Your task to perform on an android device: change the clock display to analog Image 0: 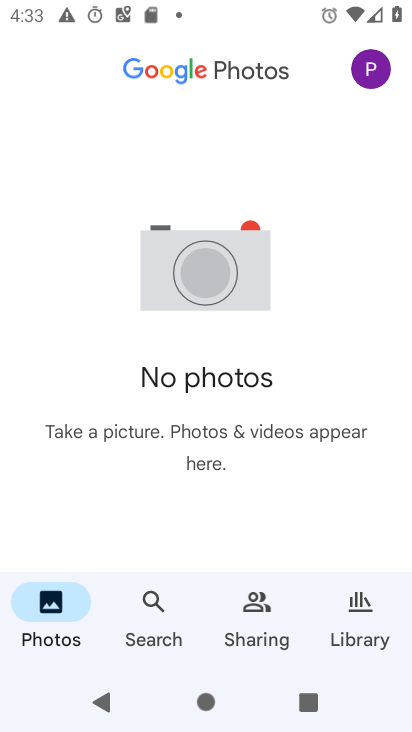
Step 0: press home button
Your task to perform on an android device: change the clock display to analog Image 1: 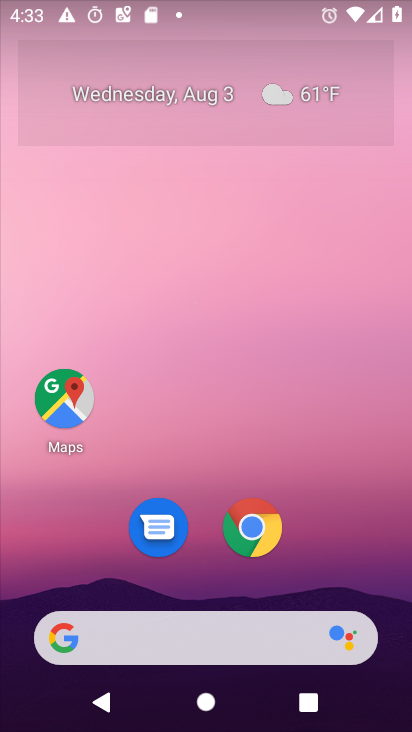
Step 1: drag from (381, 526) to (327, 45)
Your task to perform on an android device: change the clock display to analog Image 2: 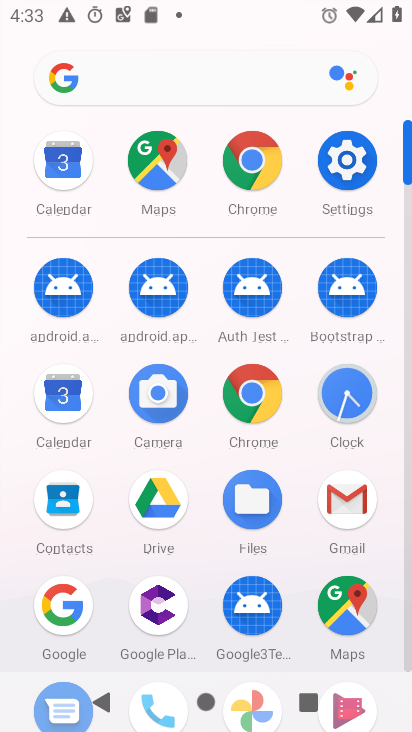
Step 2: click (345, 409)
Your task to perform on an android device: change the clock display to analog Image 3: 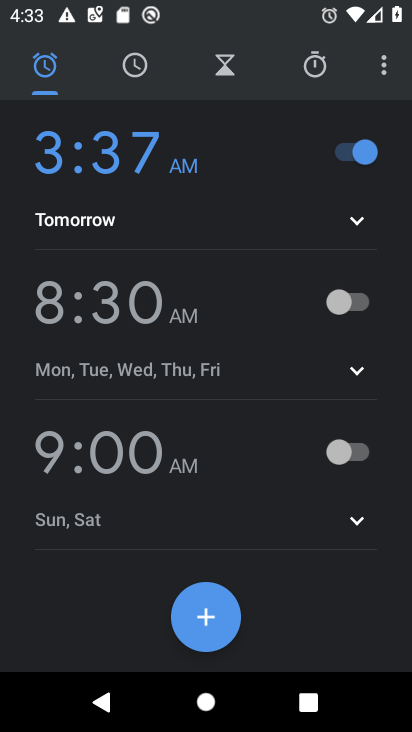
Step 3: click (381, 61)
Your task to perform on an android device: change the clock display to analog Image 4: 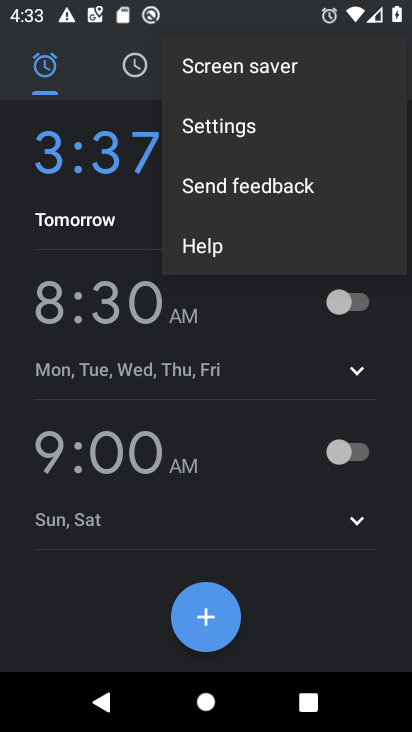
Step 4: click (244, 134)
Your task to perform on an android device: change the clock display to analog Image 5: 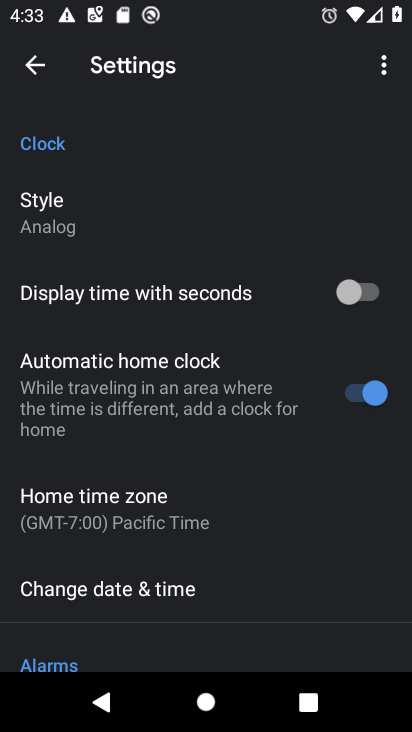
Step 5: click (68, 224)
Your task to perform on an android device: change the clock display to analog Image 6: 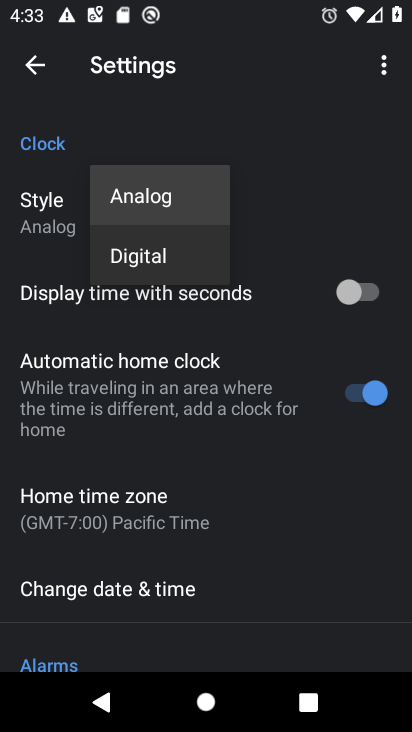
Step 6: task complete